Your task to perform on an android device: see tabs open on other devices in the chrome app Image 0: 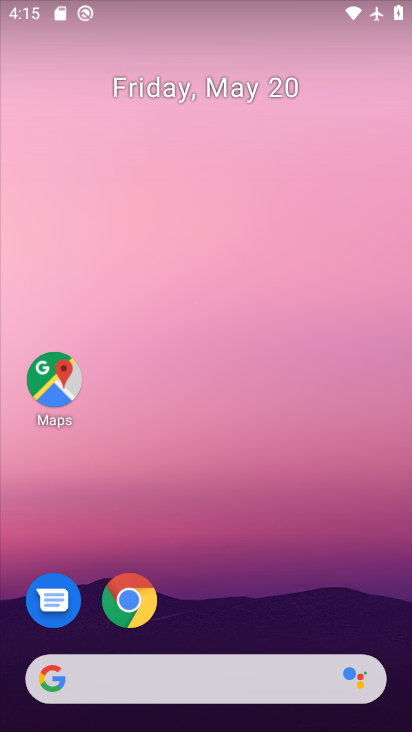
Step 0: click (126, 592)
Your task to perform on an android device: see tabs open on other devices in the chrome app Image 1: 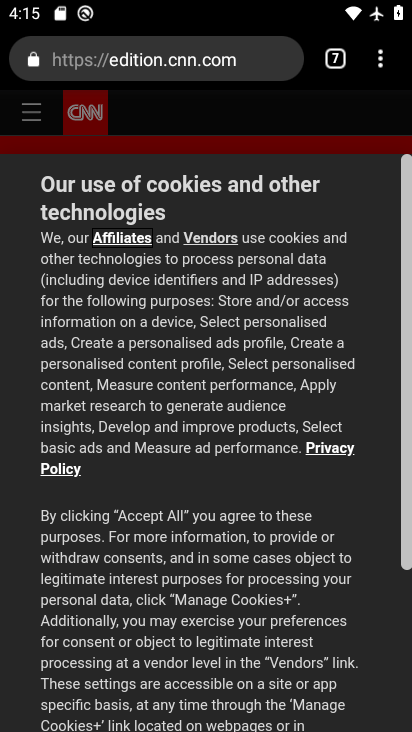
Step 1: click (335, 55)
Your task to perform on an android device: see tabs open on other devices in the chrome app Image 2: 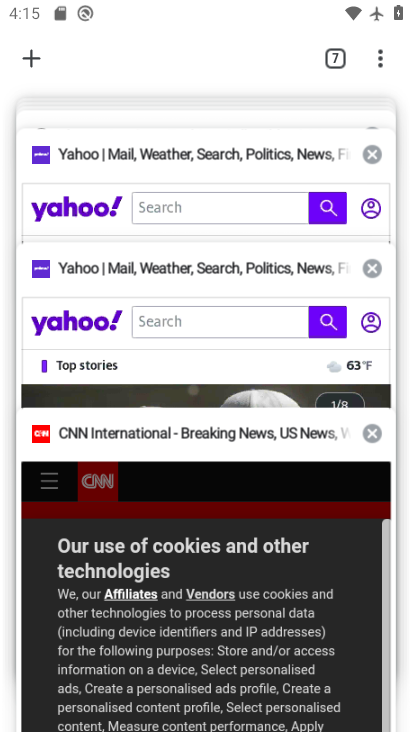
Step 2: click (334, 55)
Your task to perform on an android device: see tabs open on other devices in the chrome app Image 3: 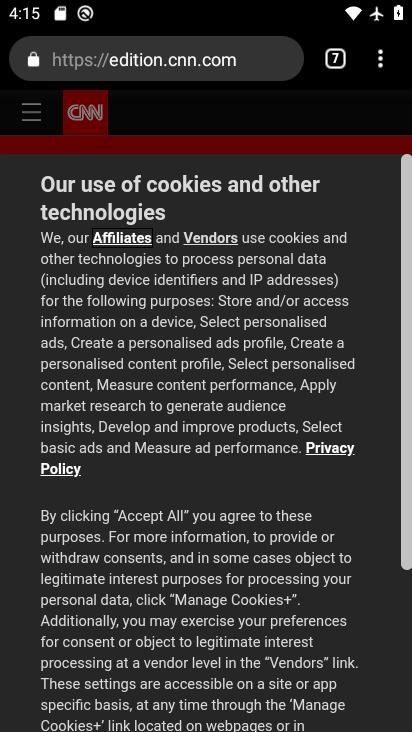
Step 3: click (374, 59)
Your task to perform on an android device: see tabs open on other devices in the chrome app Image 4: 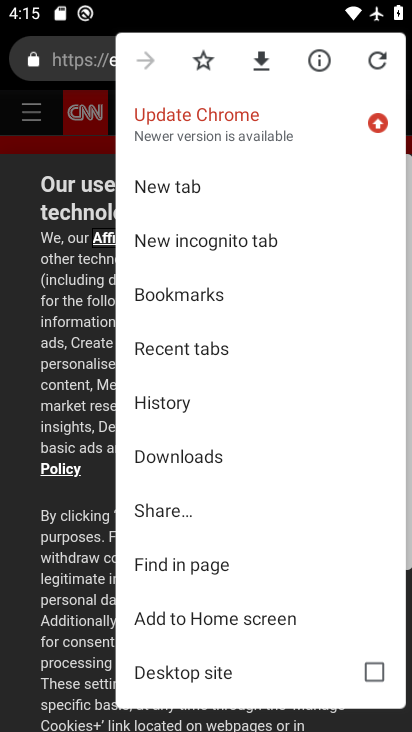
Step 4: click (219, 339)
Your task to perform on an android device: see tabs open on other devices in the chrome app Image 5: 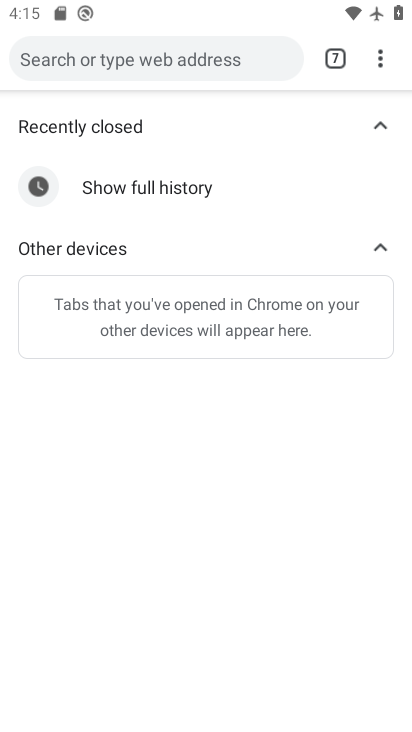
Step 5: task complete